Your task to perform on an android device: turn off data saver in the chrome app Image 0: 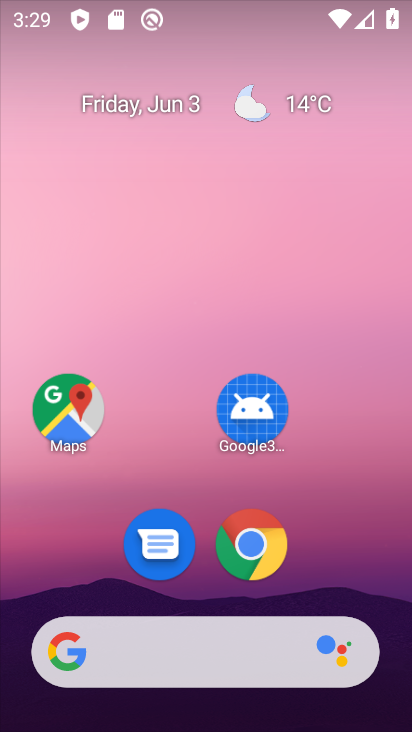
Step 0: click (249, 561)
Your task to perform on an android device: turn off data saver in the chrome app Image 1: 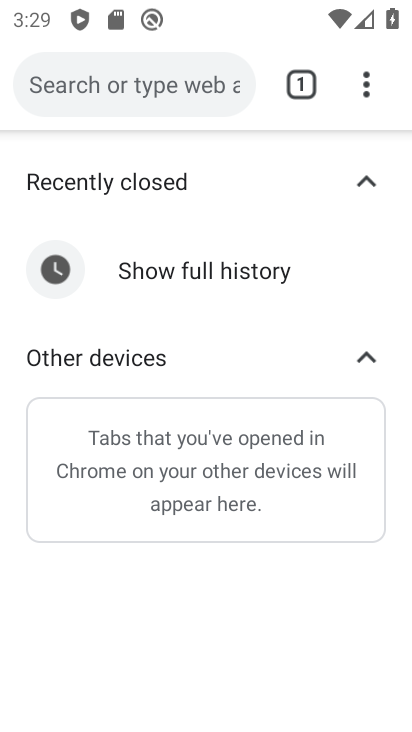
Step 1: drag from (380, 80) to (239, 599)
Your task to perform on an android device: turn off data saver in the chrome app Image 2: 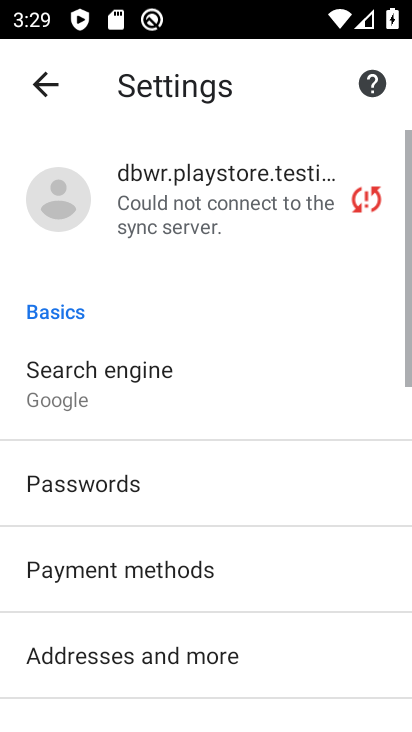
Step 2: drag from (213, 641) to (358, 222)
Your task to perform on an android device: turn off data saver in the chrome app Image 3: 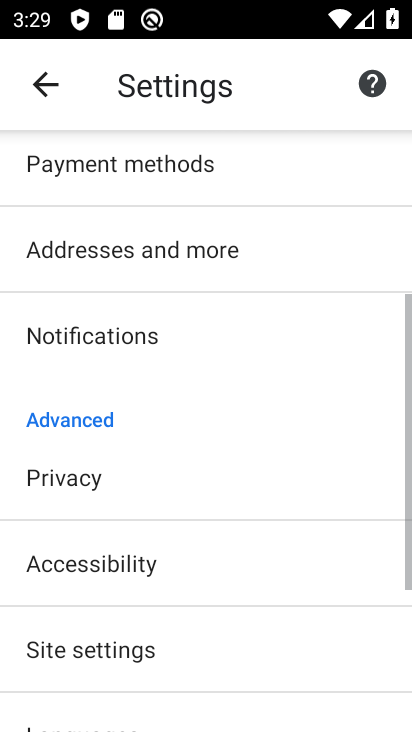
Step 3: drag from (268, 614) to (323, 367)
Your task to perform on an android device: turn off data saver in the chrome app Image 4: 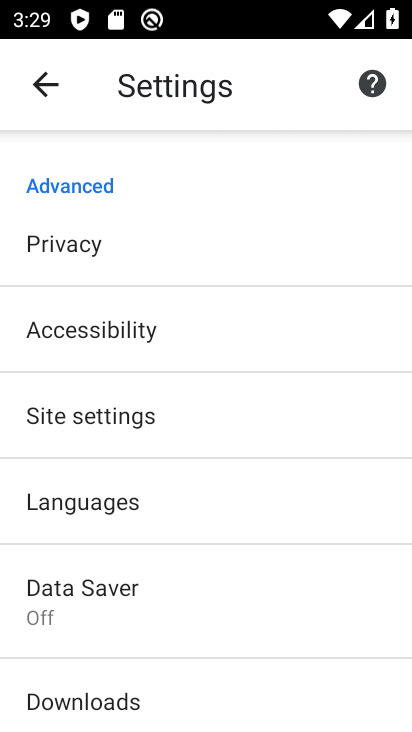
Step 4: click (223, 615)
Your task to perform on an android device: turn off data saver in the chrome app Image 5: 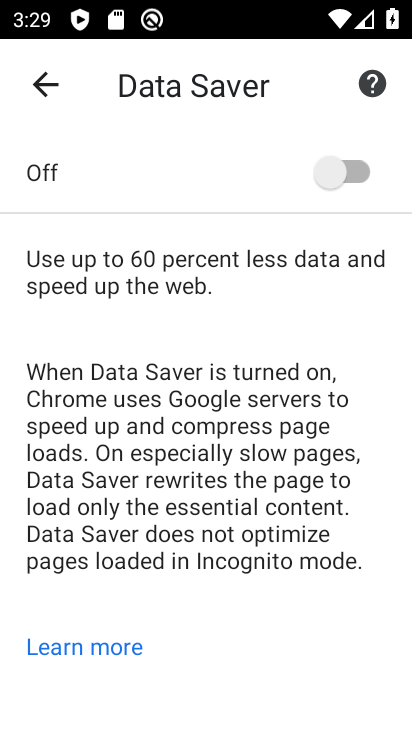
Step 5: task complete